Your task to perform on an android device: turn off sleep mode Image 0: 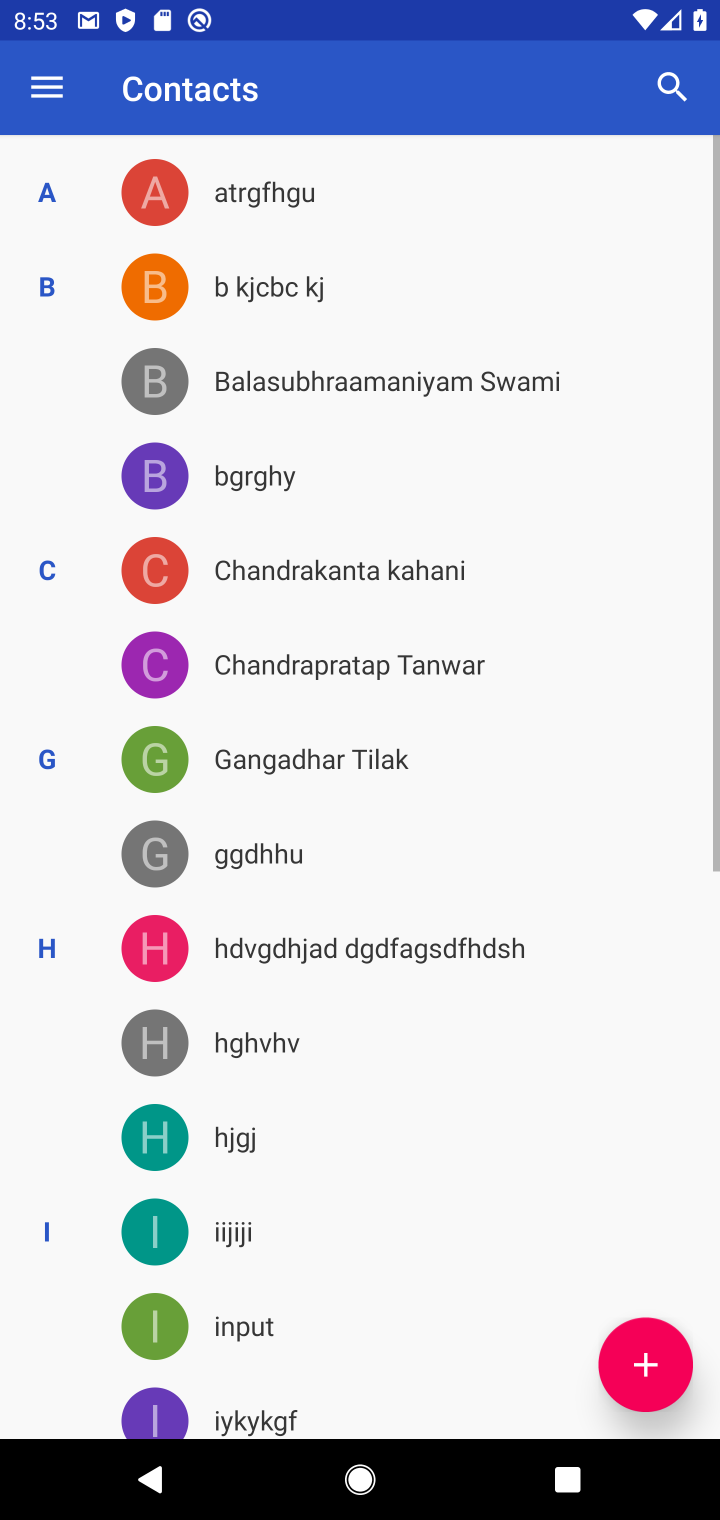
Step 0: drag from (506, 1423) to (484, 1351)
Your task to perform on an android device: turn off sleep mode Image 1: 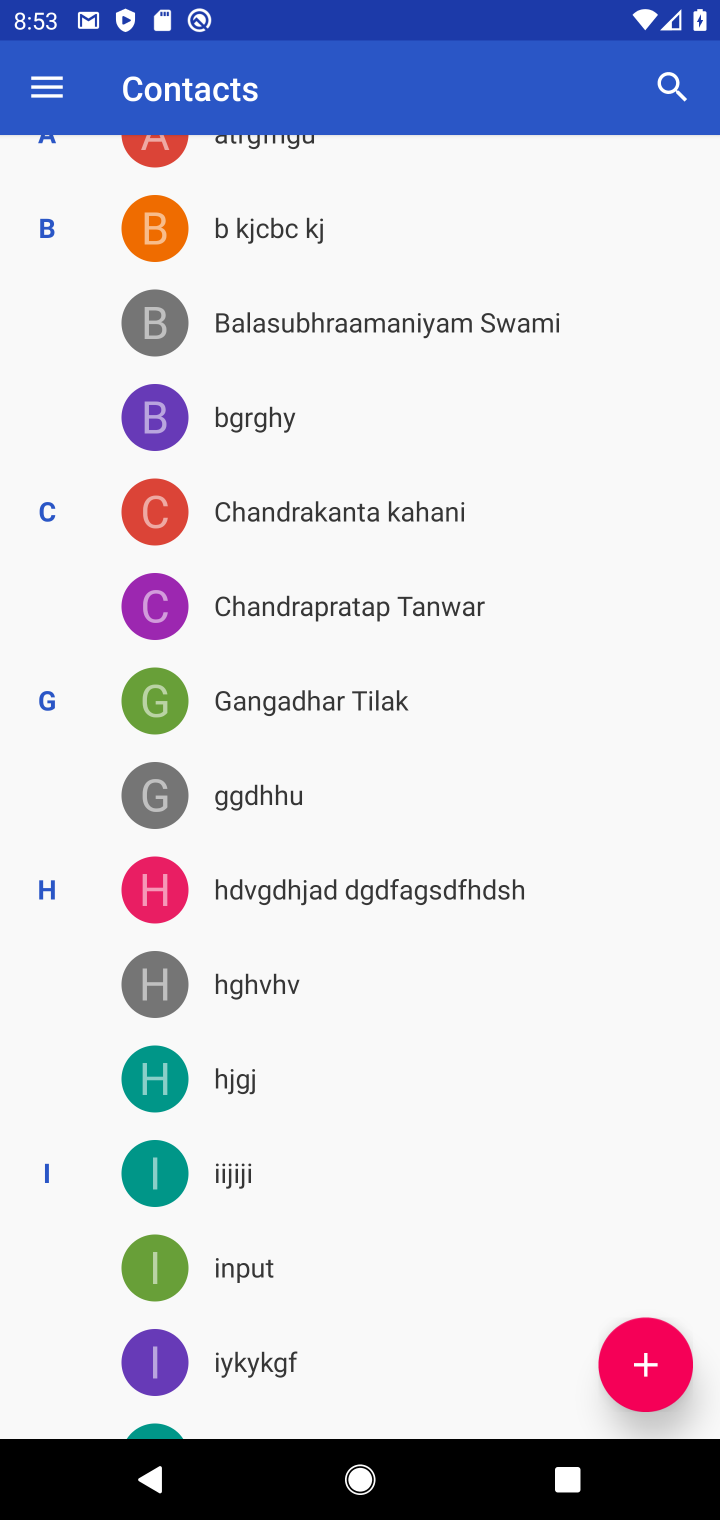
Step 1: press back button
Your task to perform on an android device: turn off sleep mode Image 2: 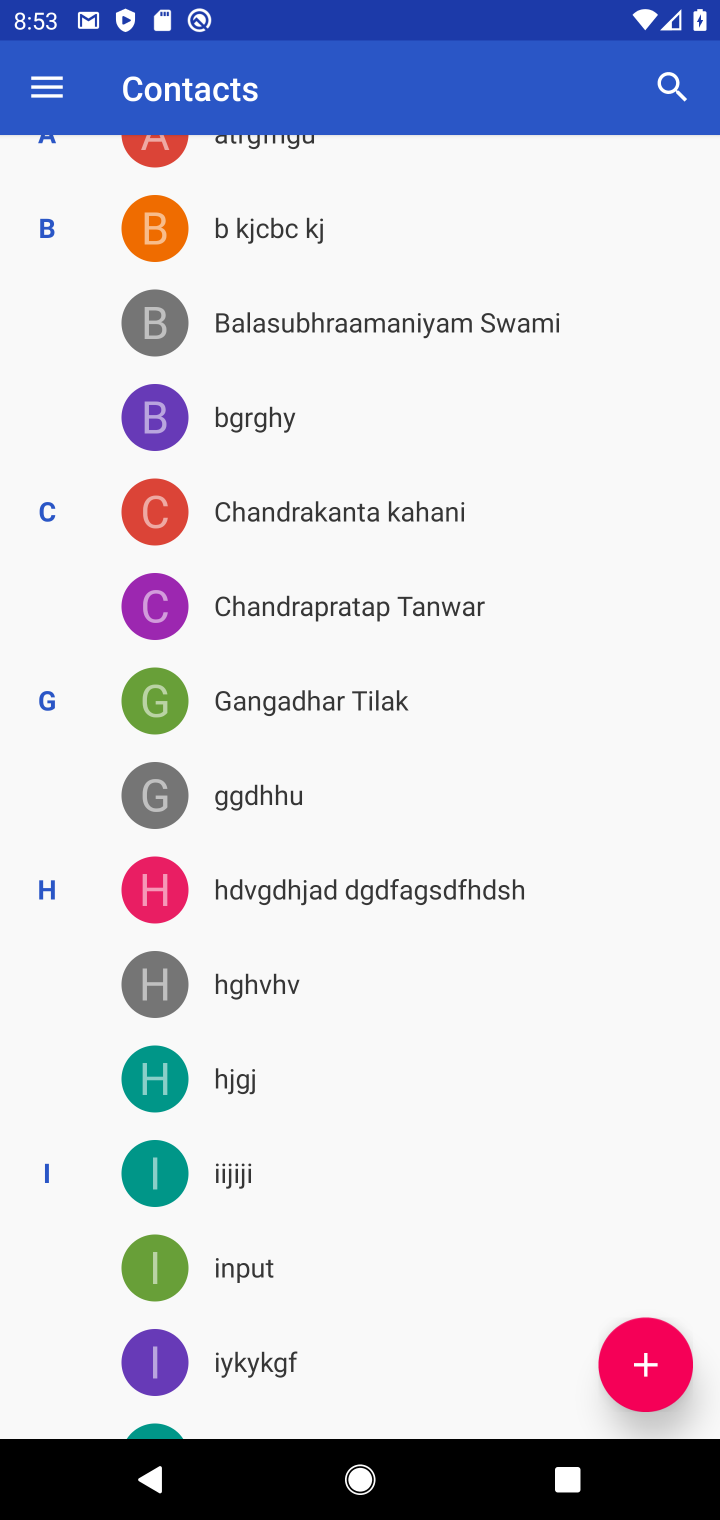
Step 2: press home button
Your task to perform on an android device: turn off sleep mode Image 3: 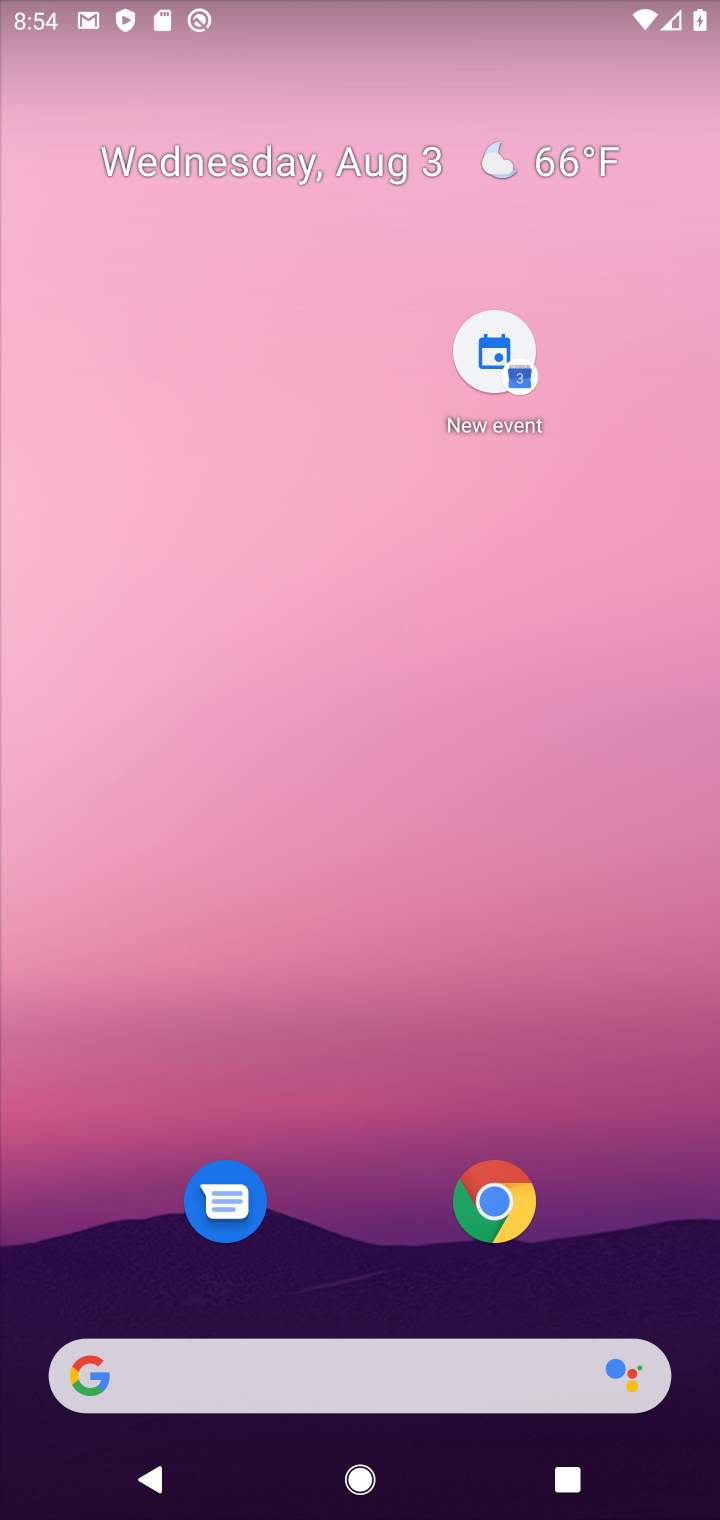
Step 3: press back button
Your task to perform on an android device: turn off sleep mode Image 4: 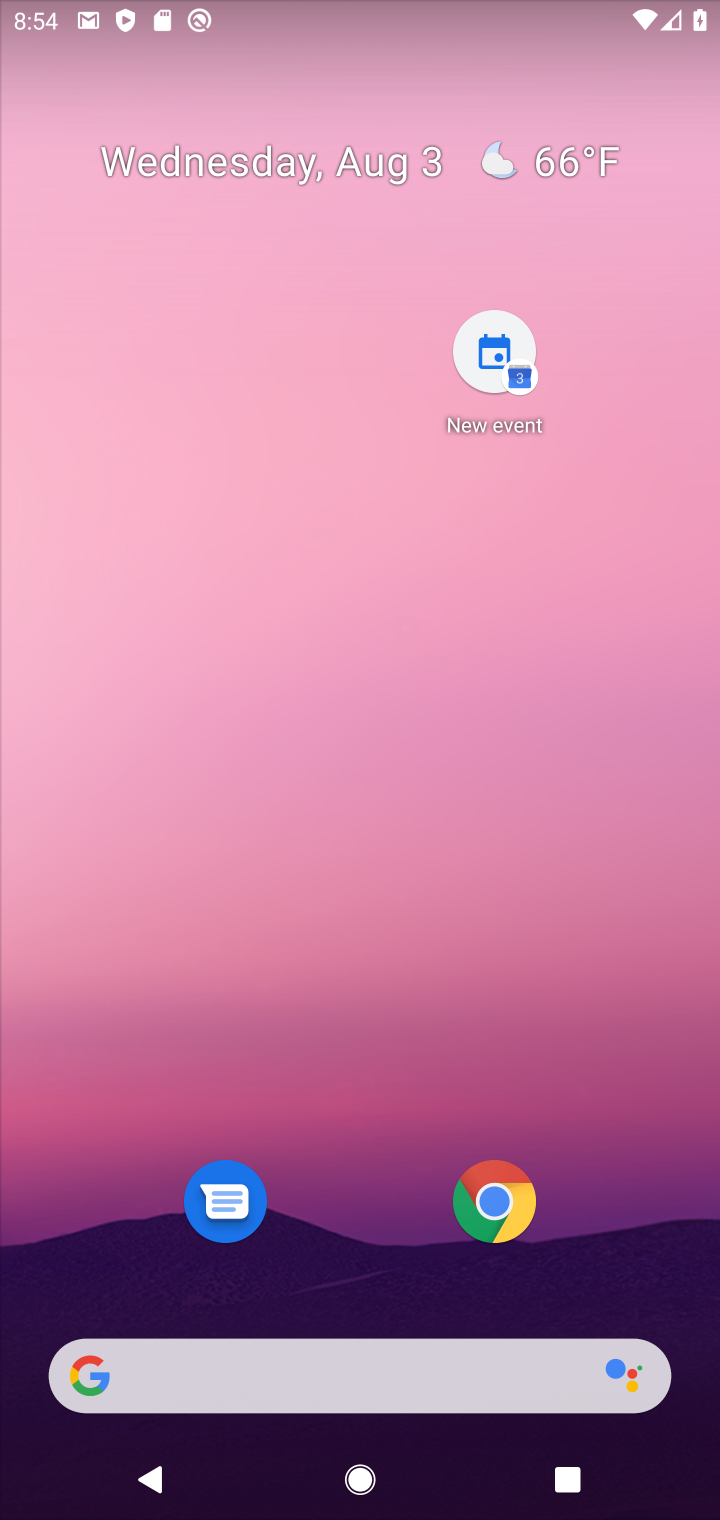
Step 4: click (189, 408)
Your task to perform on an android device: turn off sleep mode Image 5: 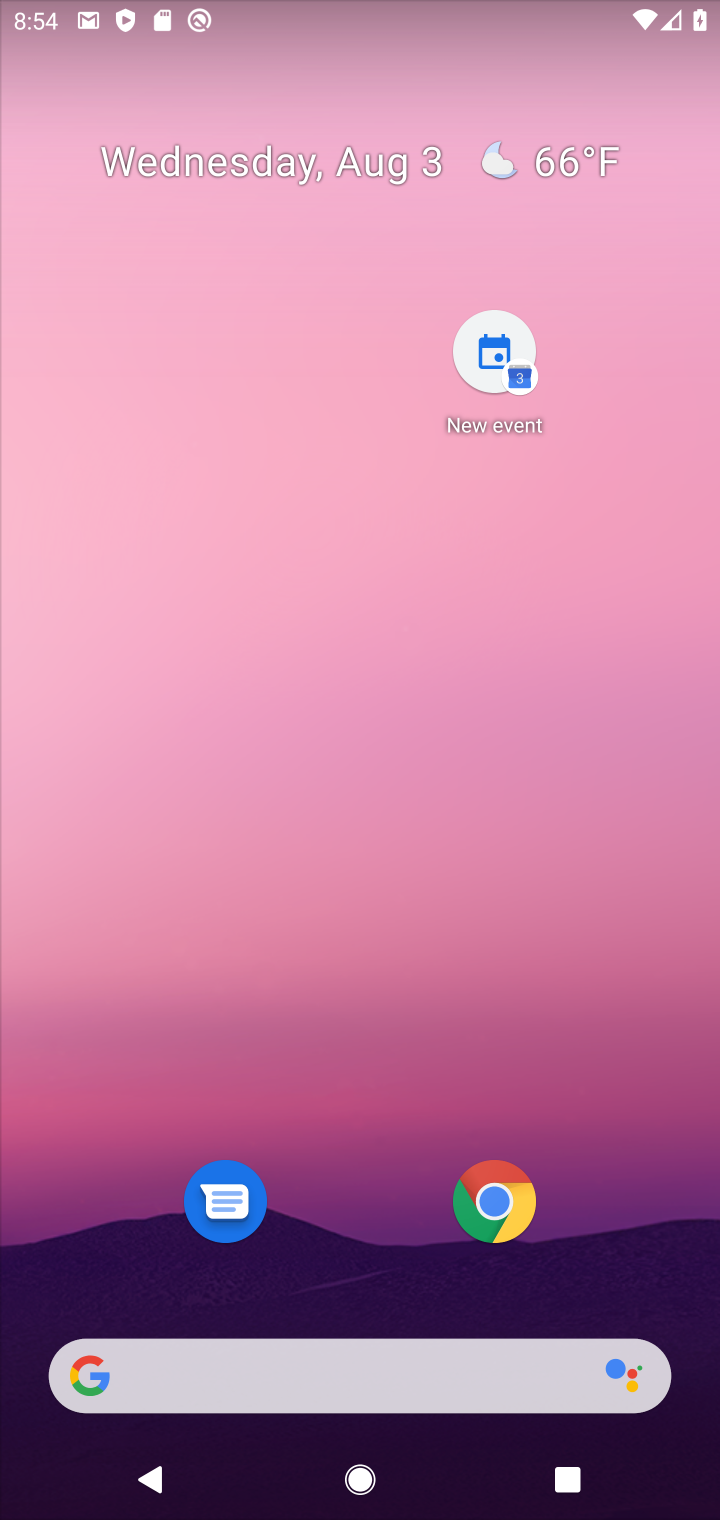
Step 5: drag from (351, 902) to (297, 476)
Your task to perform on an android device: turn off sleep mode Image 6: 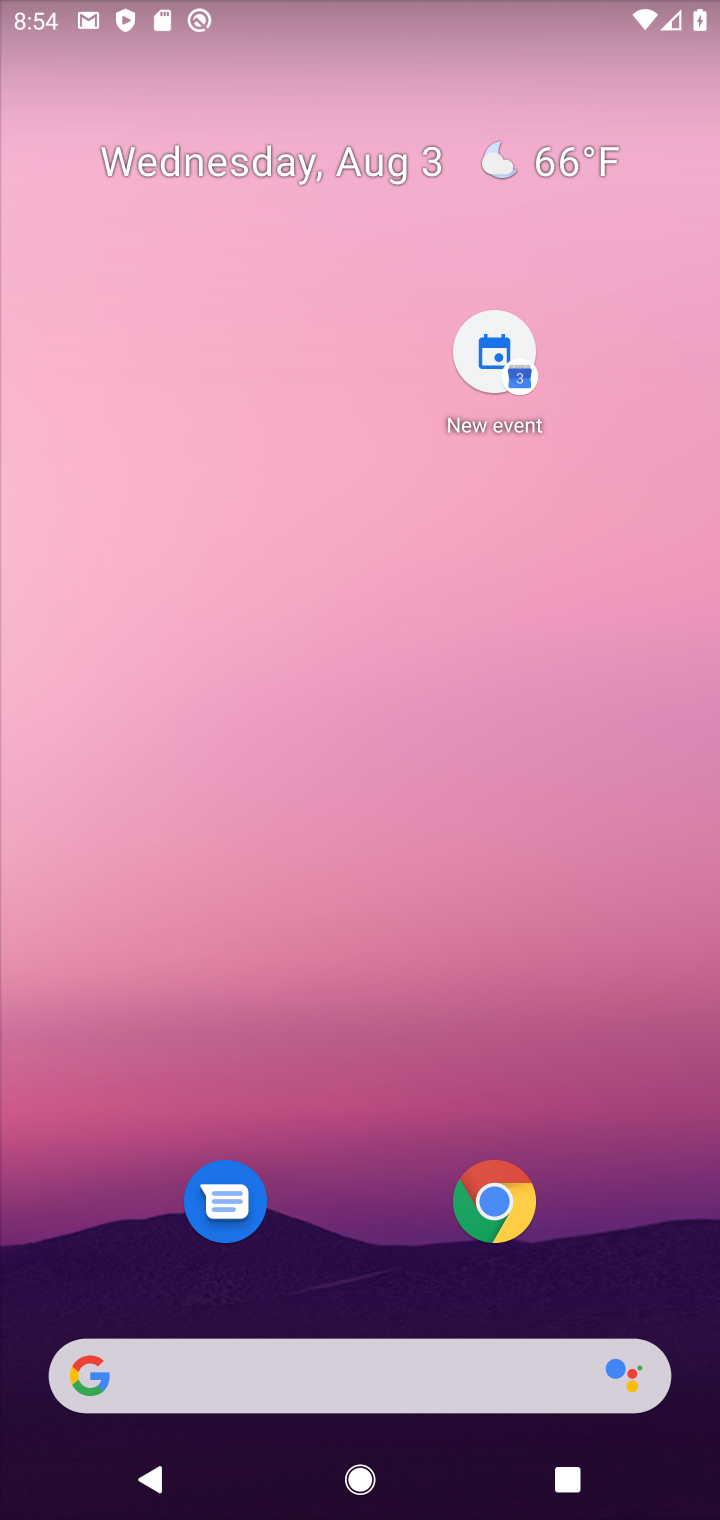
Step 6: drag from (357, 418) to (357, 264)
Your task to perform on an android device: turn off sleep mode Image 7: 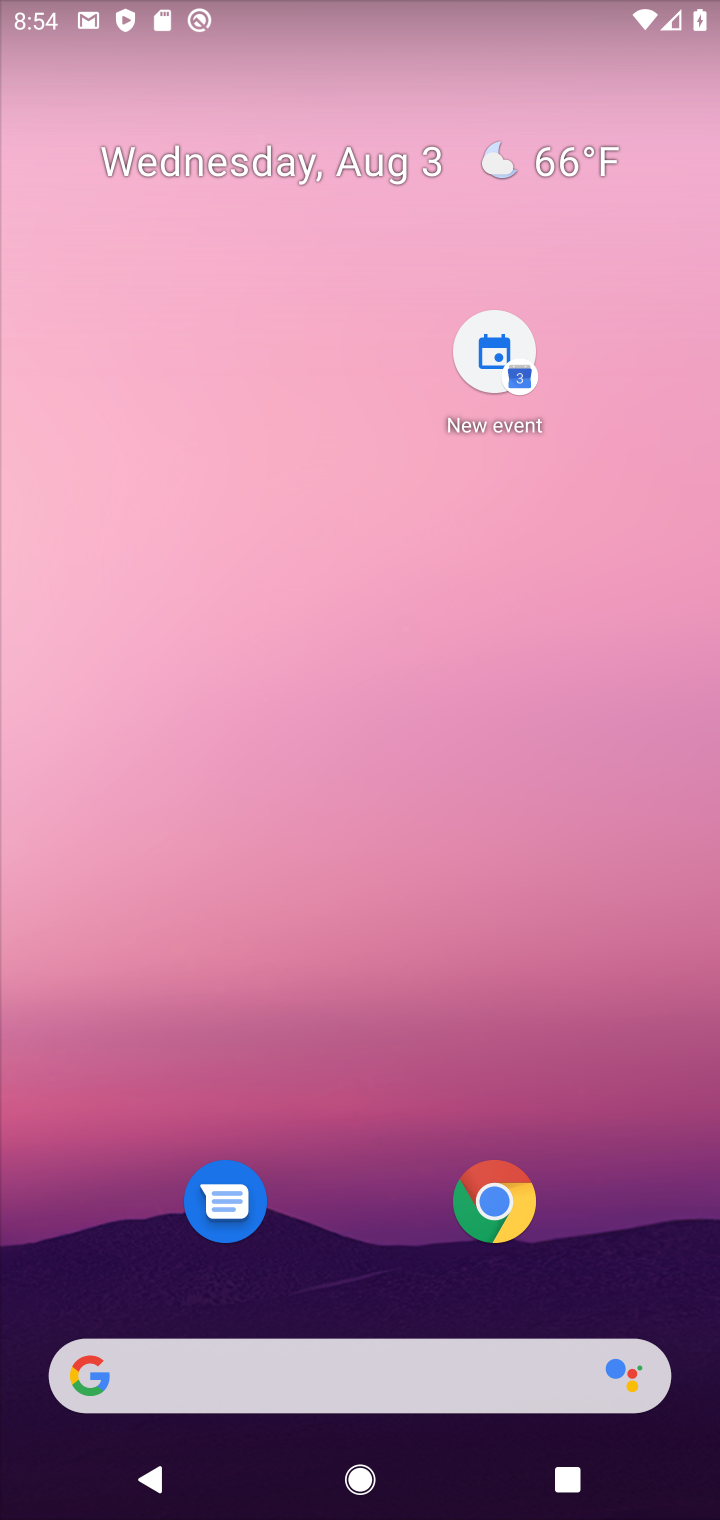
Step 7: drag from (270, 805) to (262, 649)
Your task to perform on an android device: turn off sleep mode Image 8: 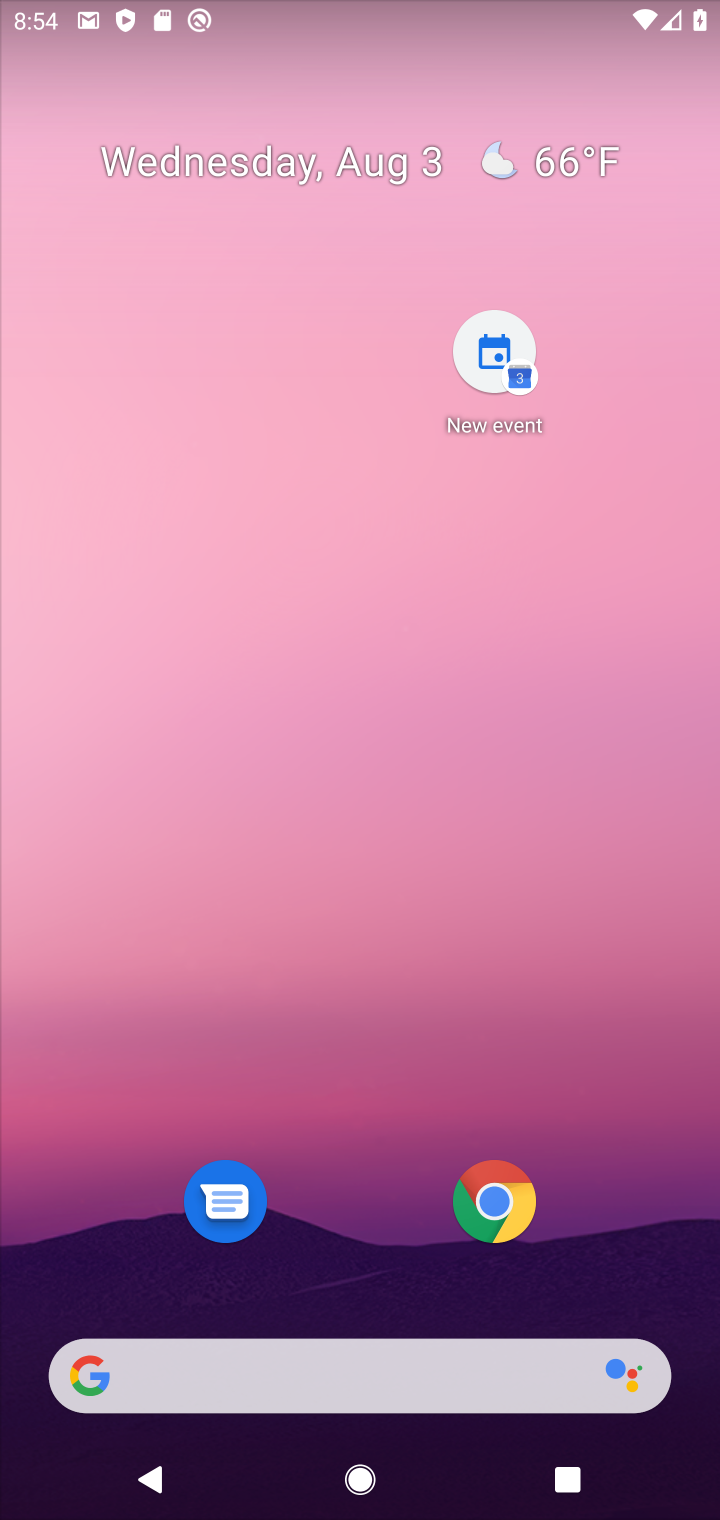
Step 8: drag from (237, 911) to (225, 301)
Your task to perform on an android device: turn off sleep mode Image 9: 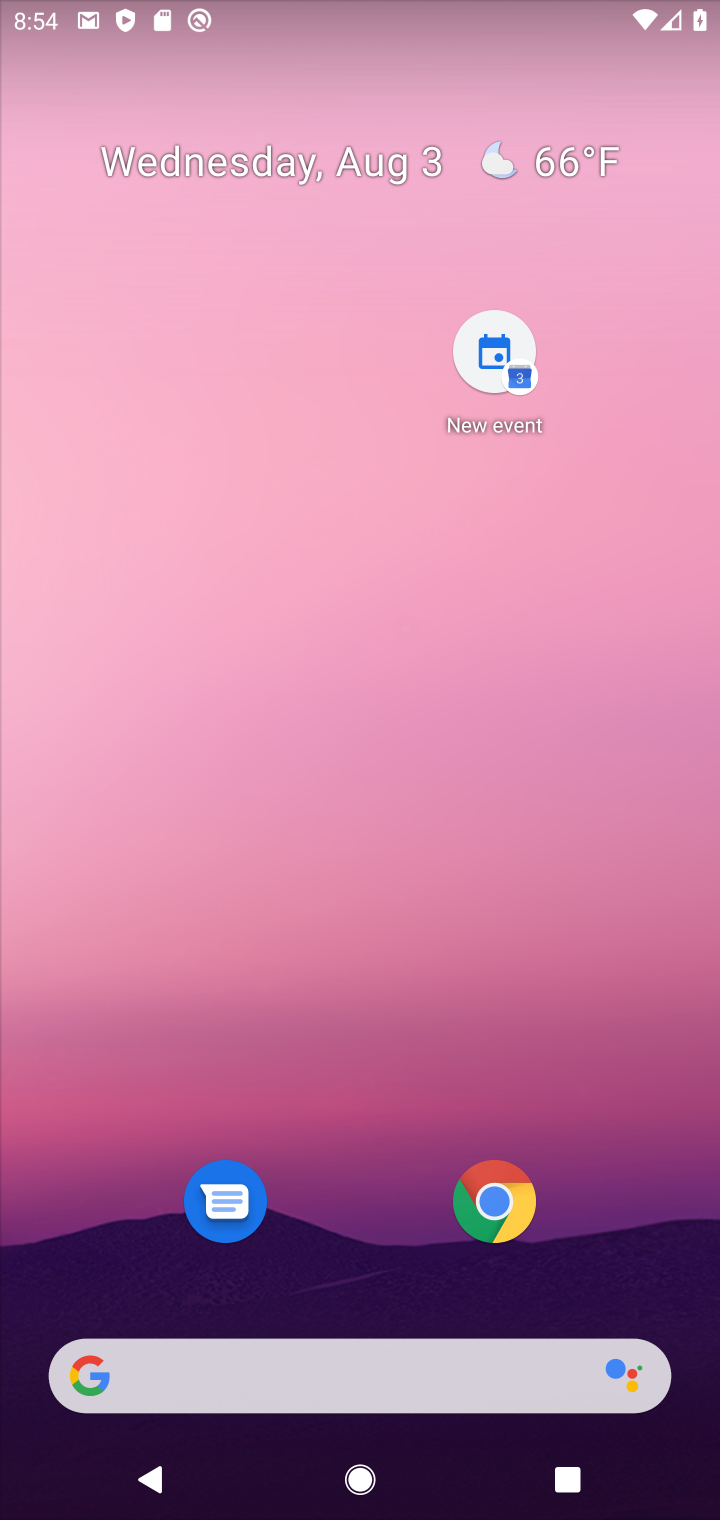
Step 9: drag from (438, 1341) to (215, 15)
Your task to perform on an android device: turn off sleep mode Image 10: 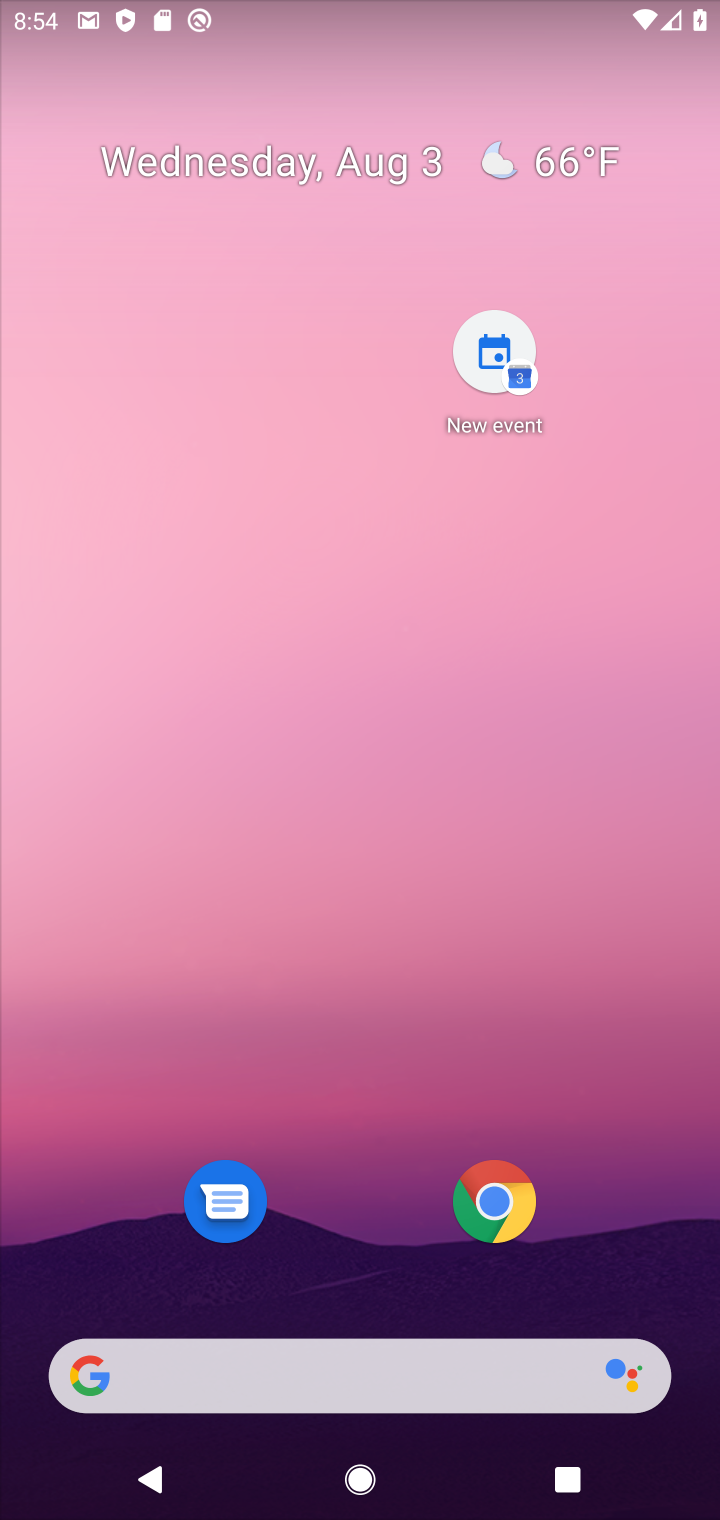
Step 10: drag from (261, 5) to (358, 33)
Your task to perform on an android device: turn off sleep mode Image 11: 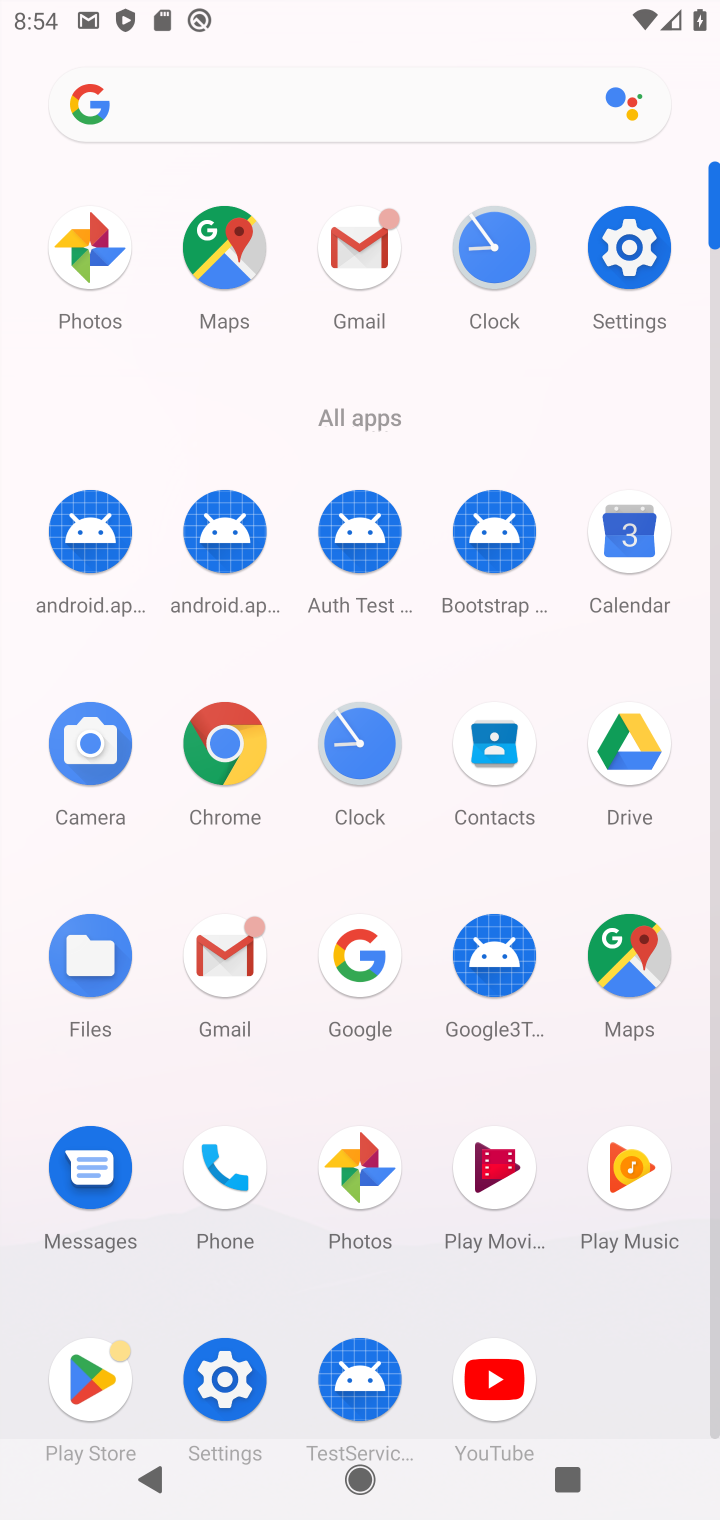
Step 11: click (625, 239)
Your task to perform on an android device: turn off sleep mode Image 12: 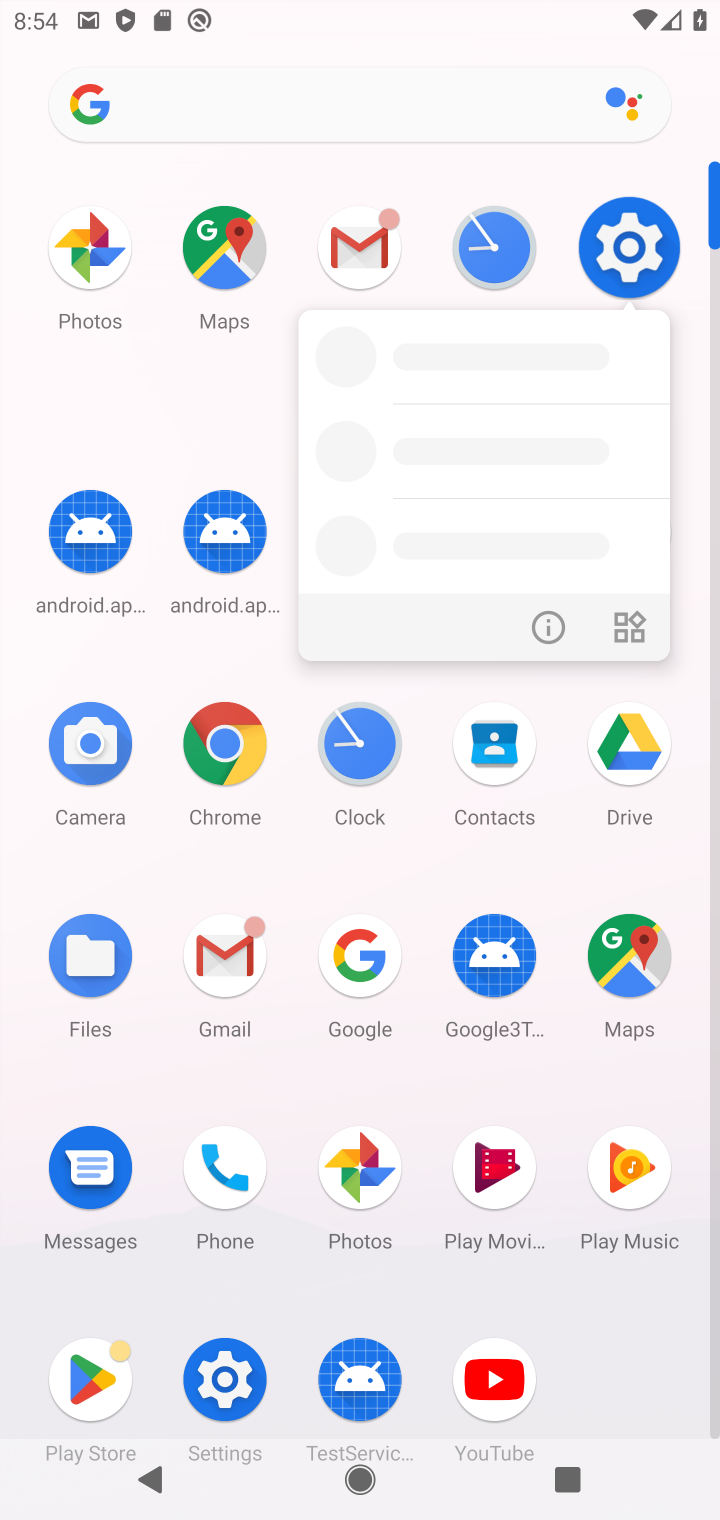
Step 12: click (625, 239)
Your task to perform on an android device: turn off sleep mode Image 13: 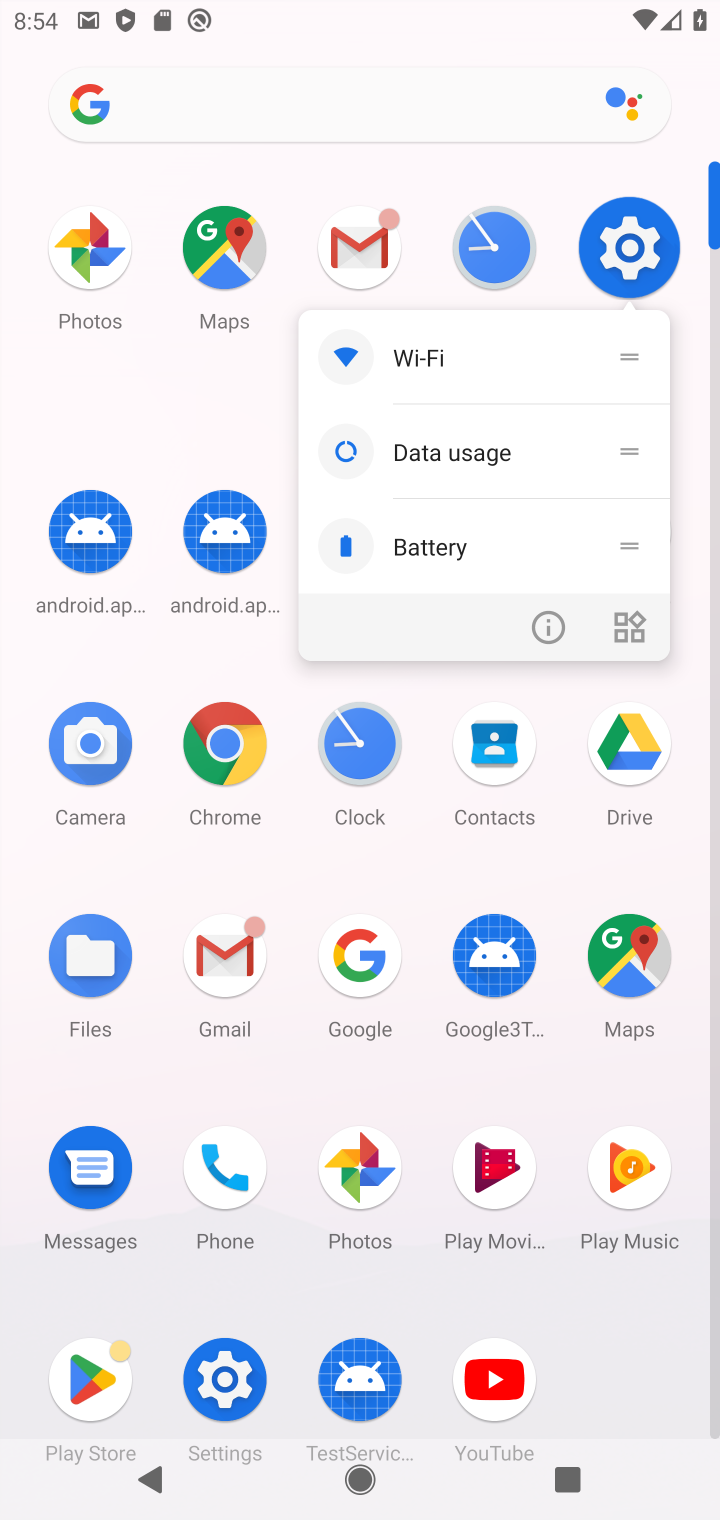
Step 13: click (630, 243)
Your task to perform on an android device: turn off sleep mode Image 14: 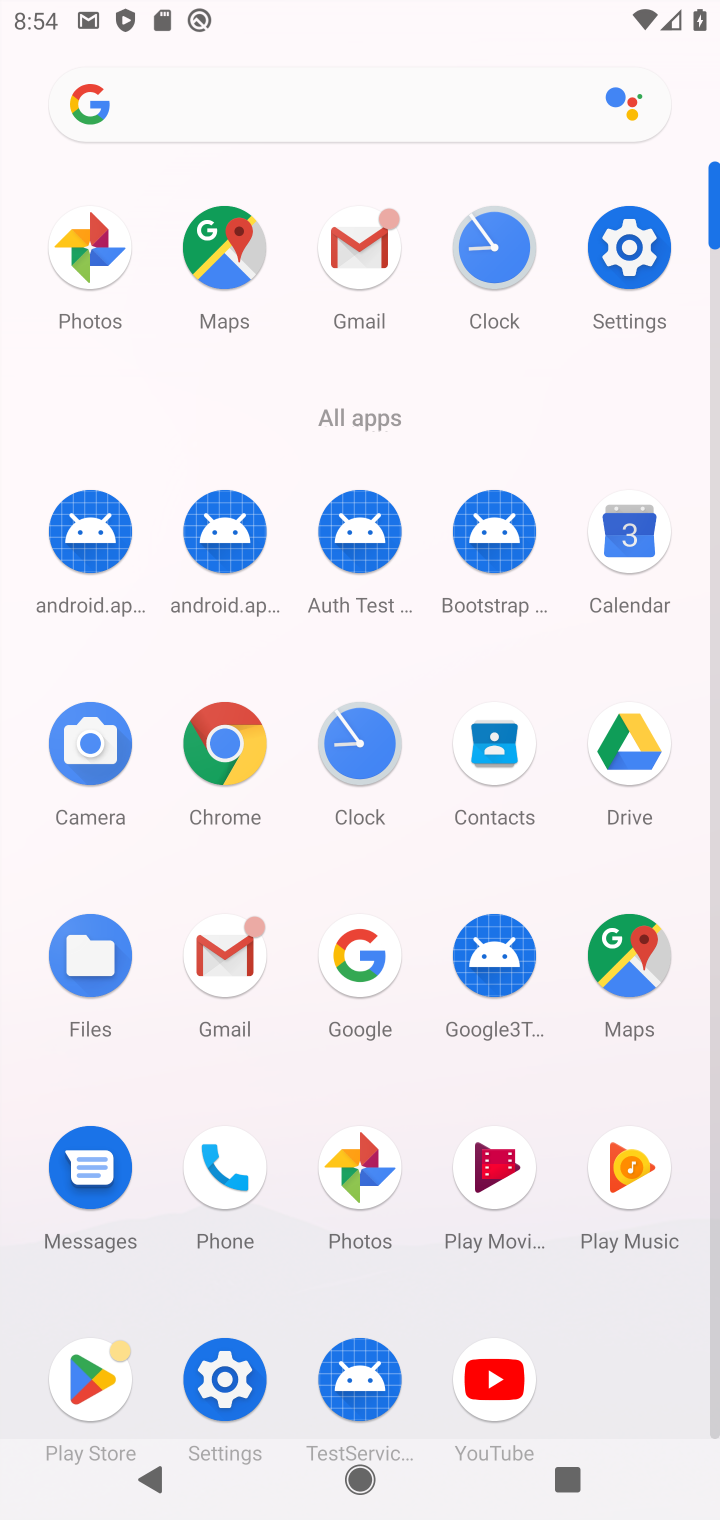
Step 14: click (630, 243)
Your task to perform on an android device: turn off sleep mode Image 15: 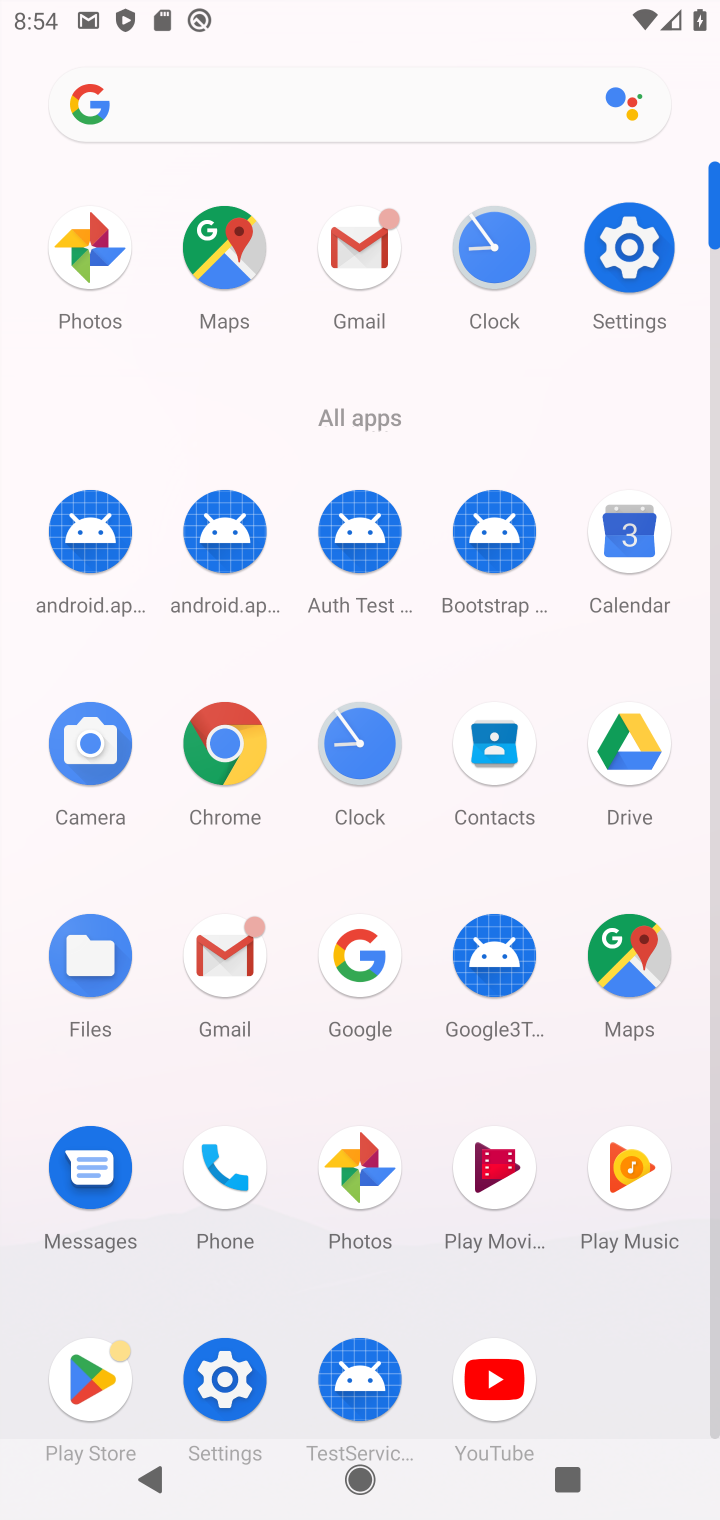
Step 15: click (630, 243)
Your task to perform on an android device: turn off sleep mode Image 16: 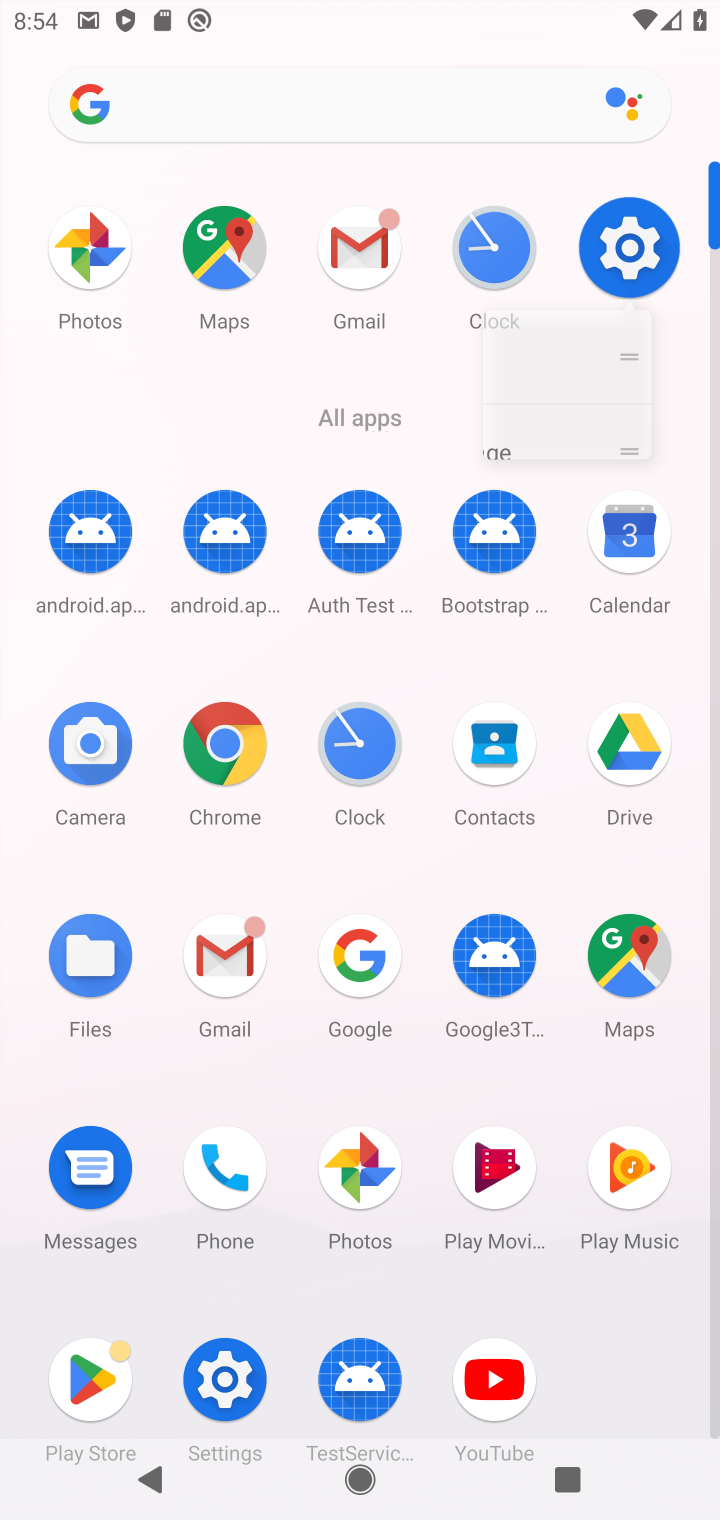
Step 16: click (630, 243)
Your task to perform on an android device: turn off sleep mode Image 17: 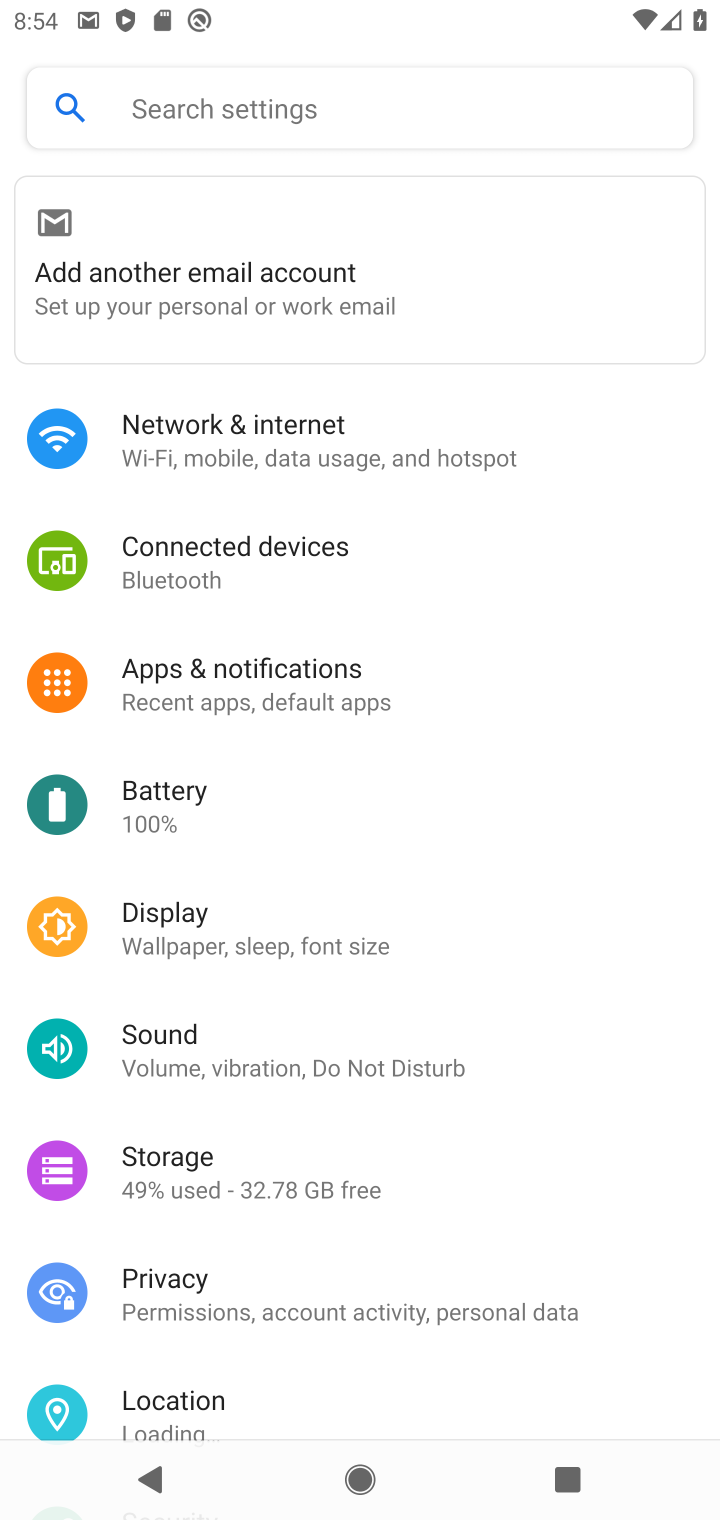
Step 17: click (166, 738)
Your task to perform on an android device: turn off sleep mode Image 18: 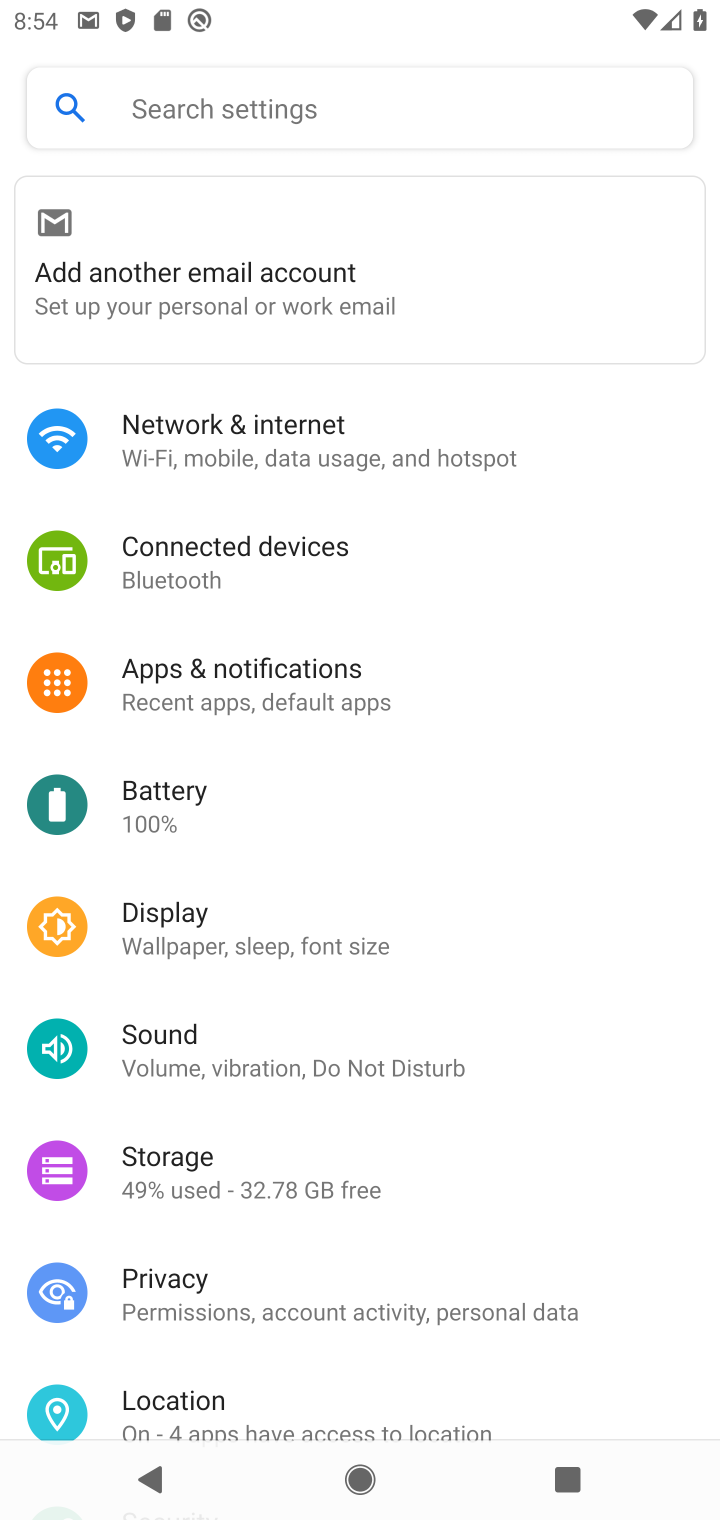
Step 18: click (179, 714)
Your task to perform on an android device: turn off sleep mode Image 19: 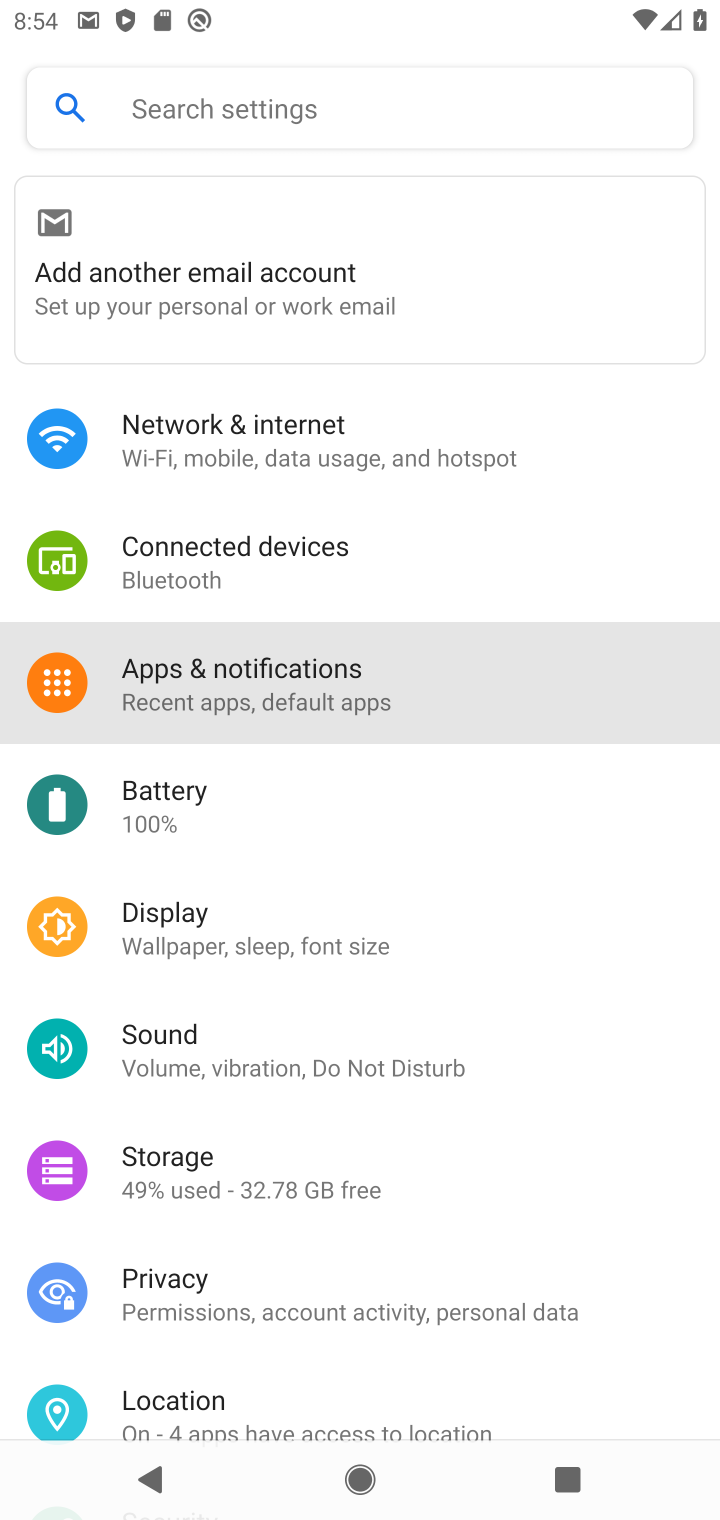
Step 19: click (181, 708)
Your task to perform on an android device: turn off sleep mode Image 20: 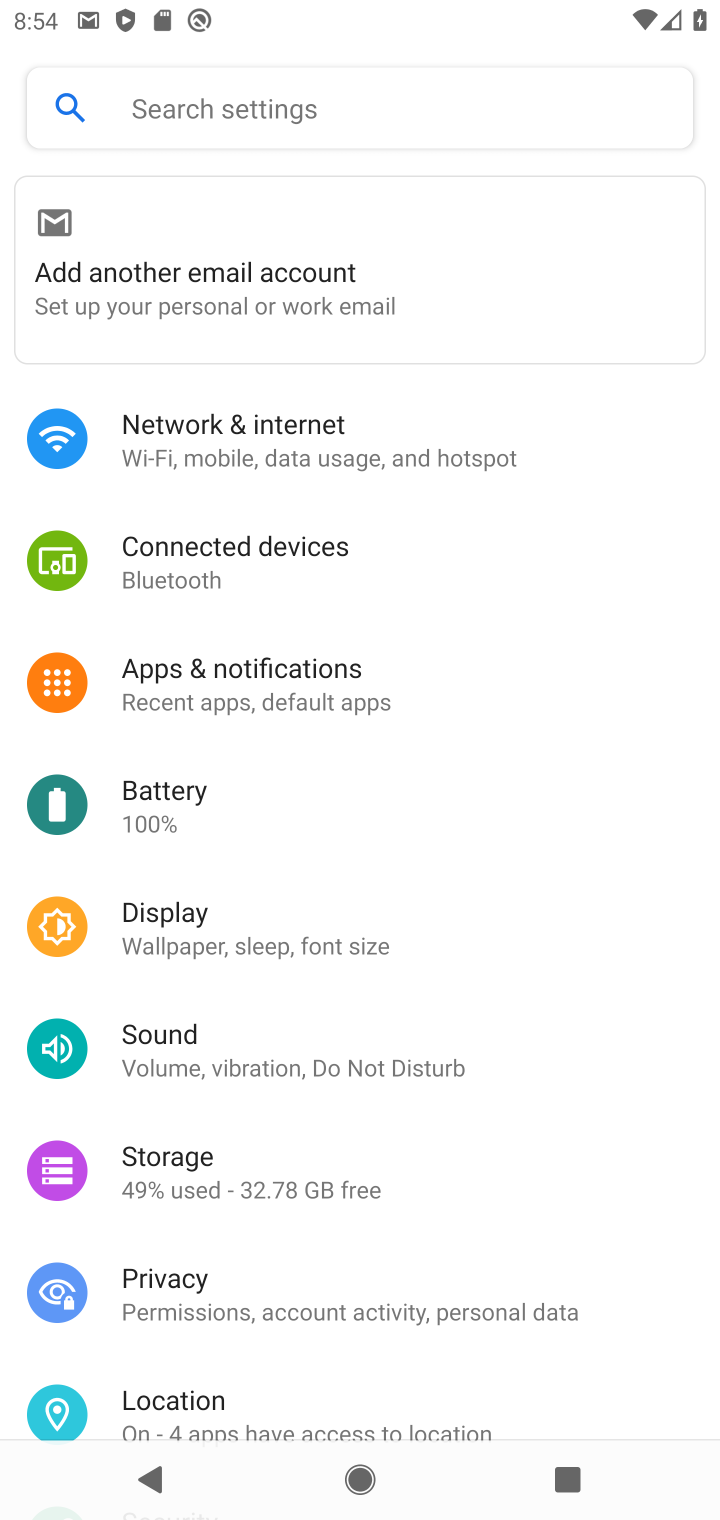
Step 20: click (181, 708)
Your task to perform on an android device: turn off sleep mode Image 21: 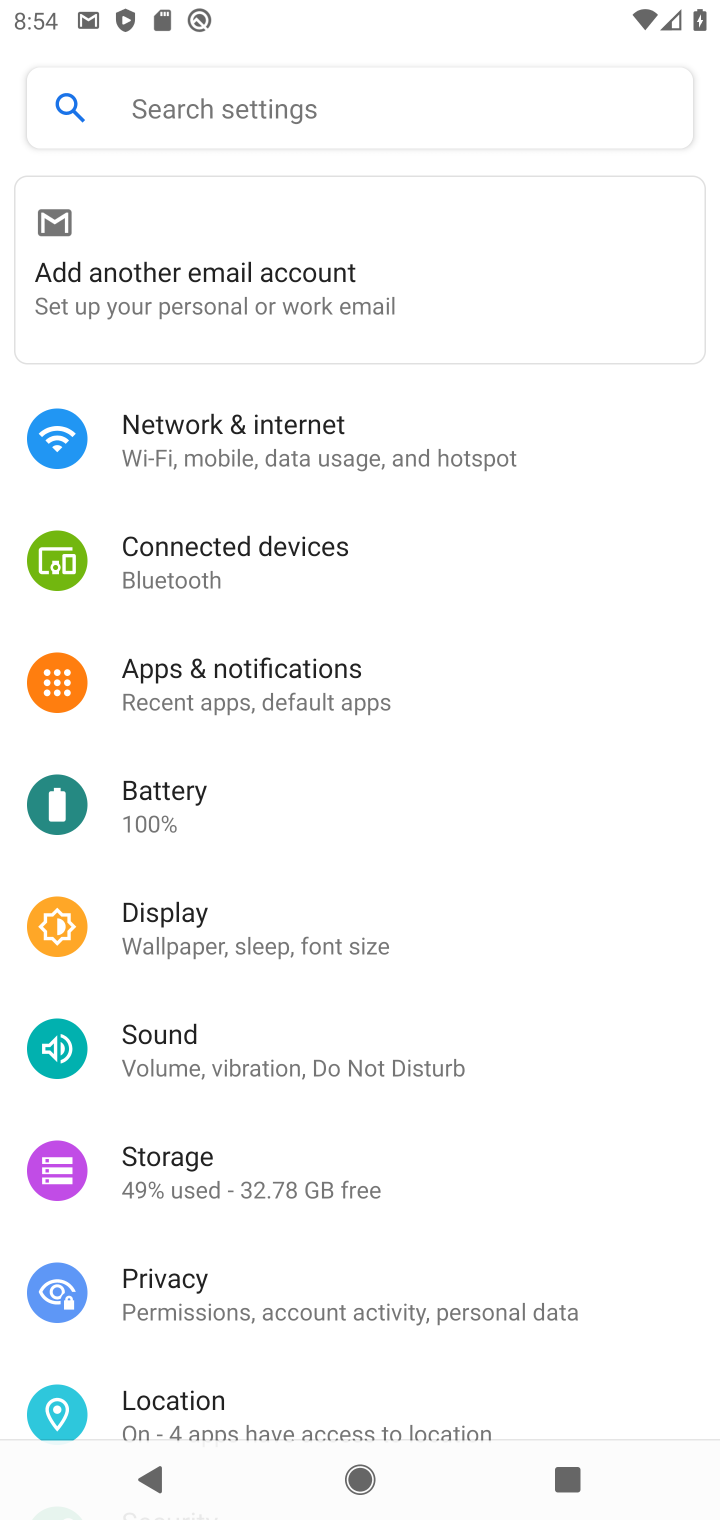
Step 21: click (211, 946)
Your task to perform on an android device: turn off sleep mode Image 22: 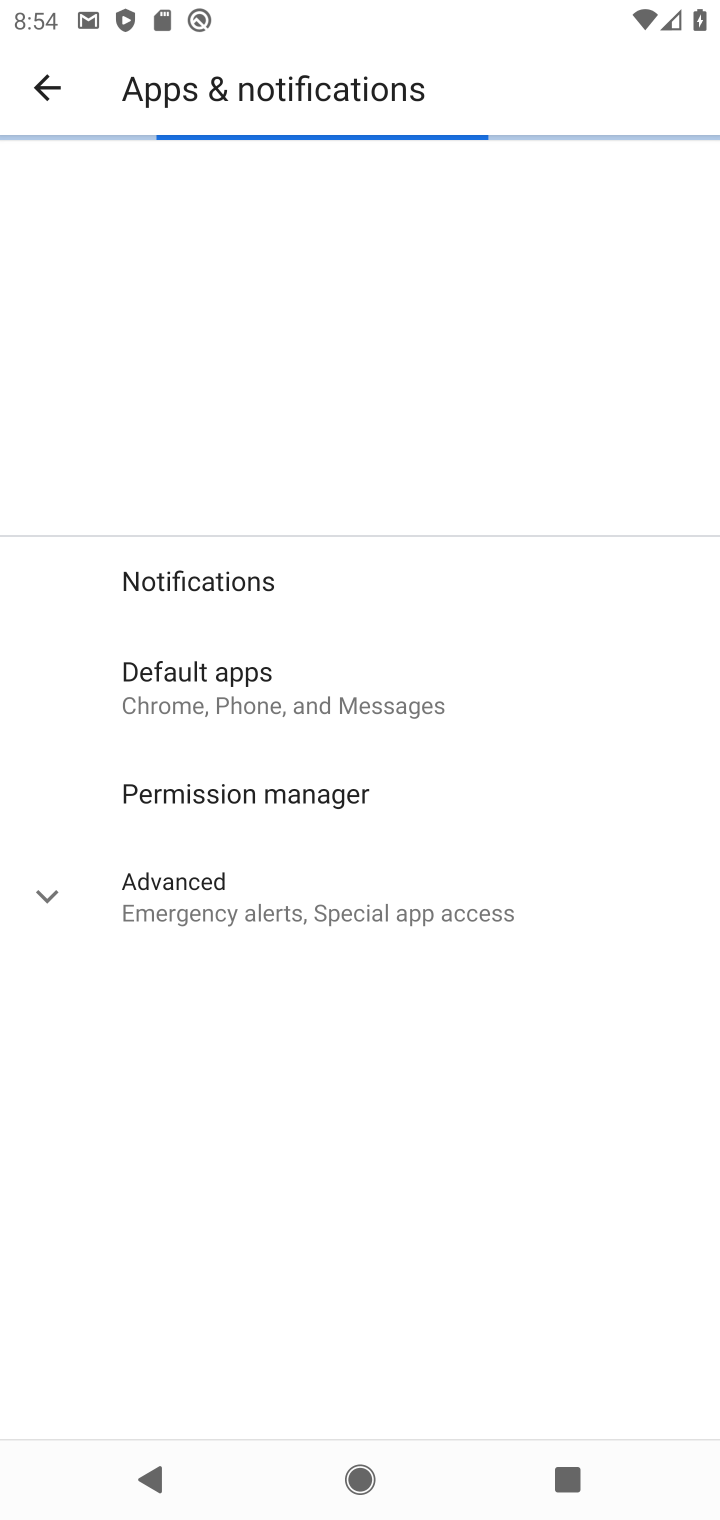
Step 22: click (179, 951)
Your task to perform on an android device: turn off sleep mode Image 23: 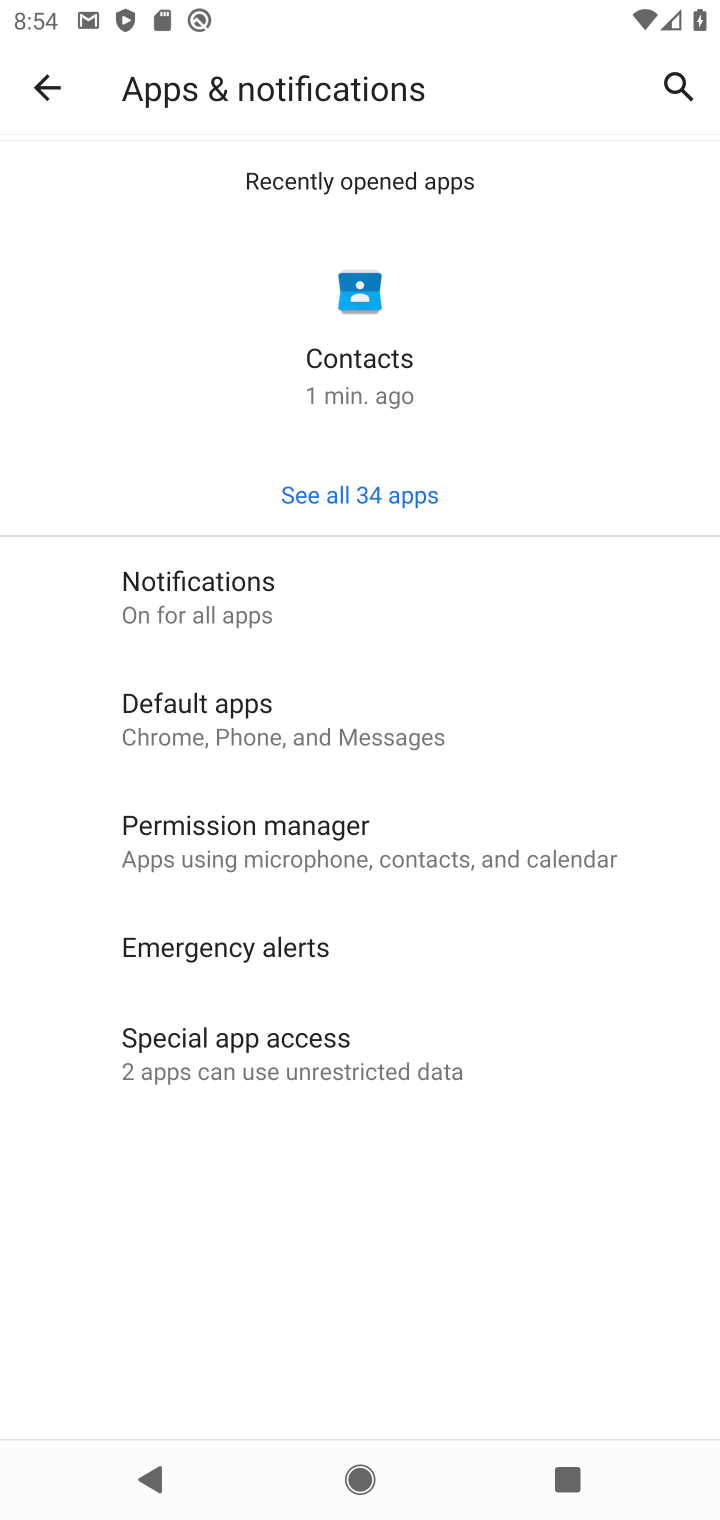
Step 23: click (19, 87)
Your task to perform on an android device: turn off sleep mode Image 24: 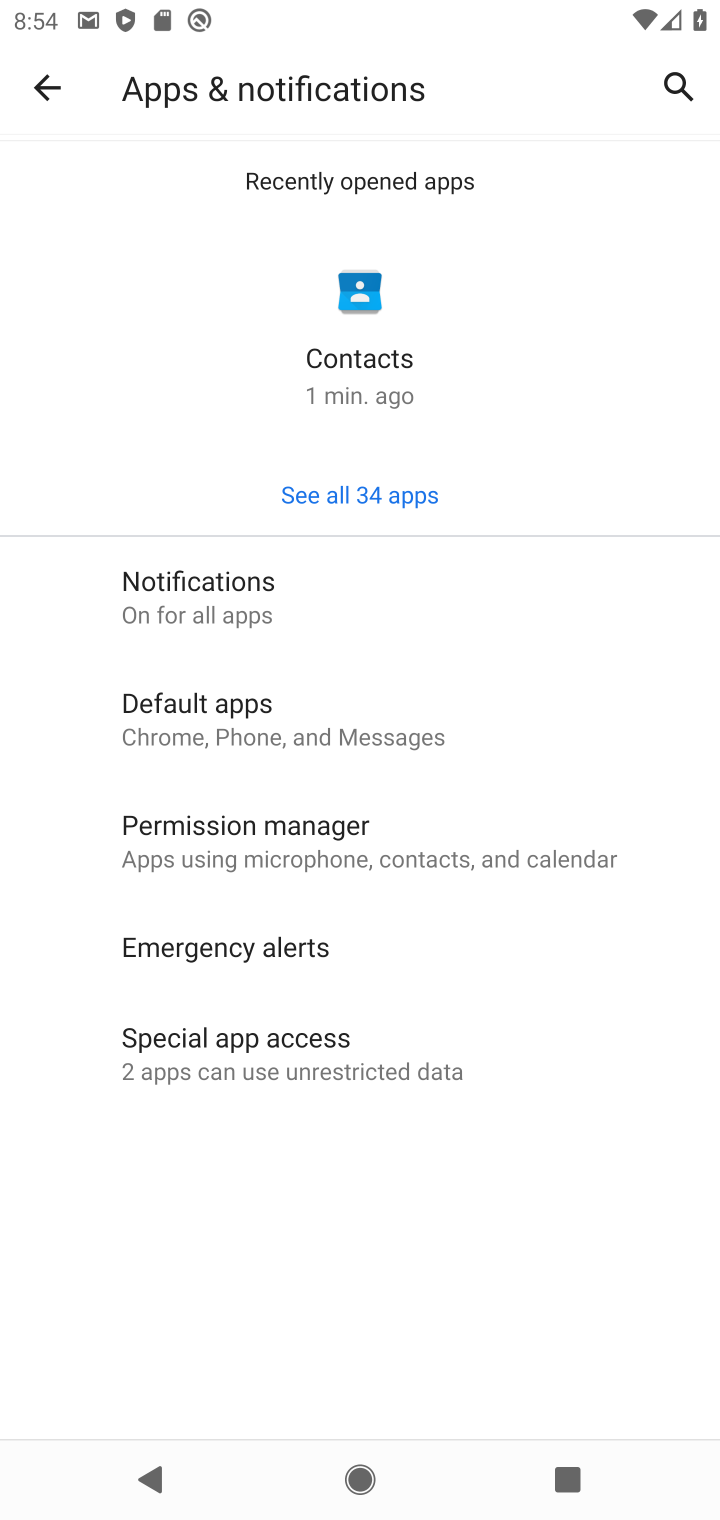
Step 24: click (36, 87)
Your task to perform on an android device: turn off sleep mode Image 25: 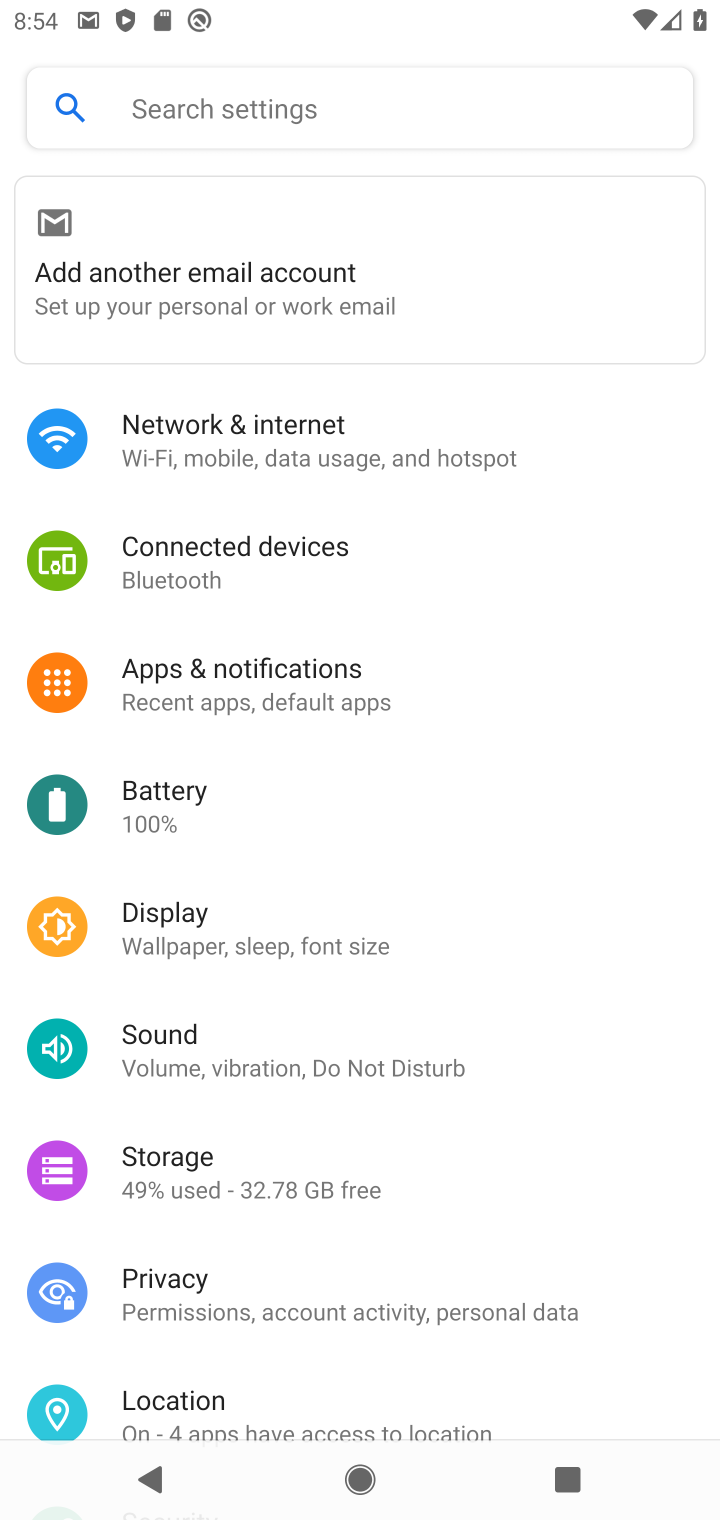
Step 25: click (171, 931)
Your task to perform on an android device: turn off sleep mode Image 26: 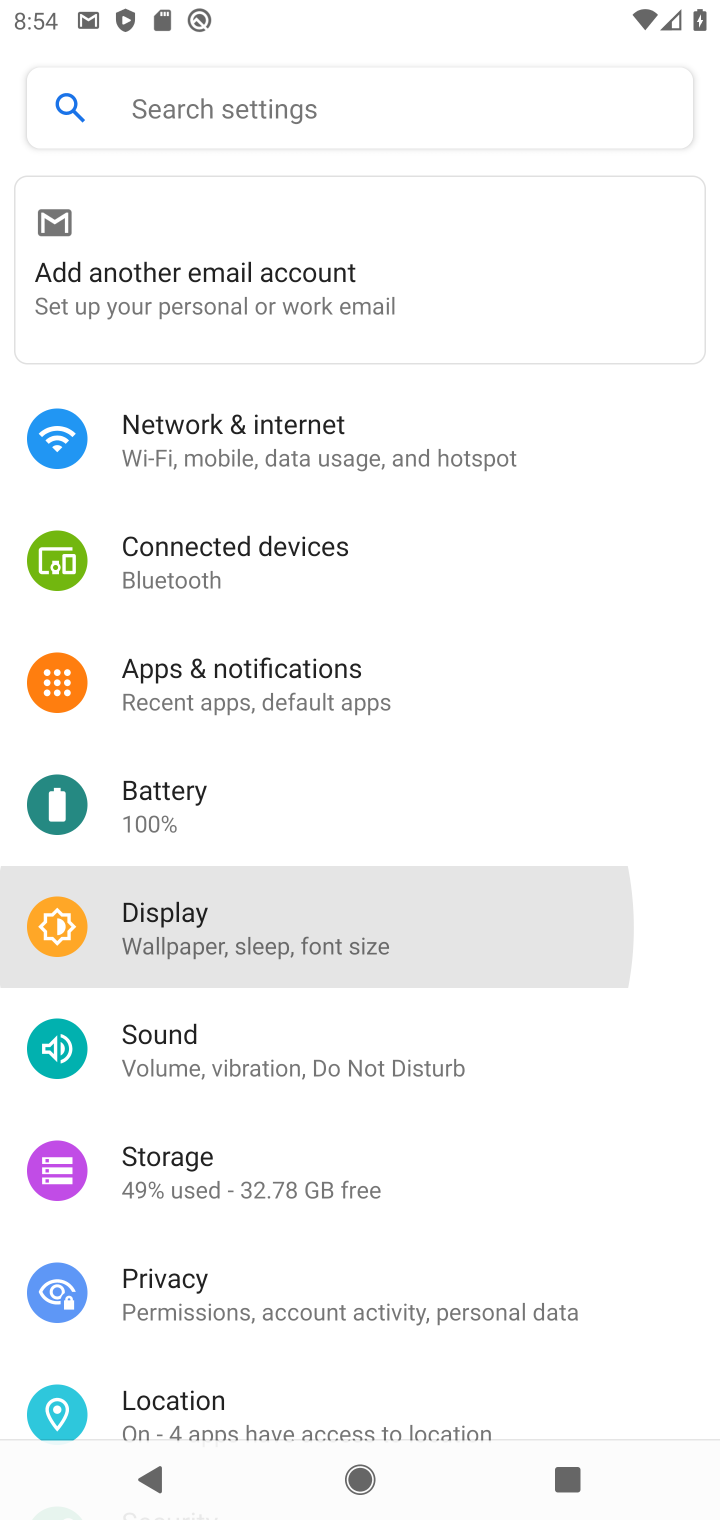
Step 26: click (171, 931)
Your task to perform on an android device: turn off sleep mode Image 27: 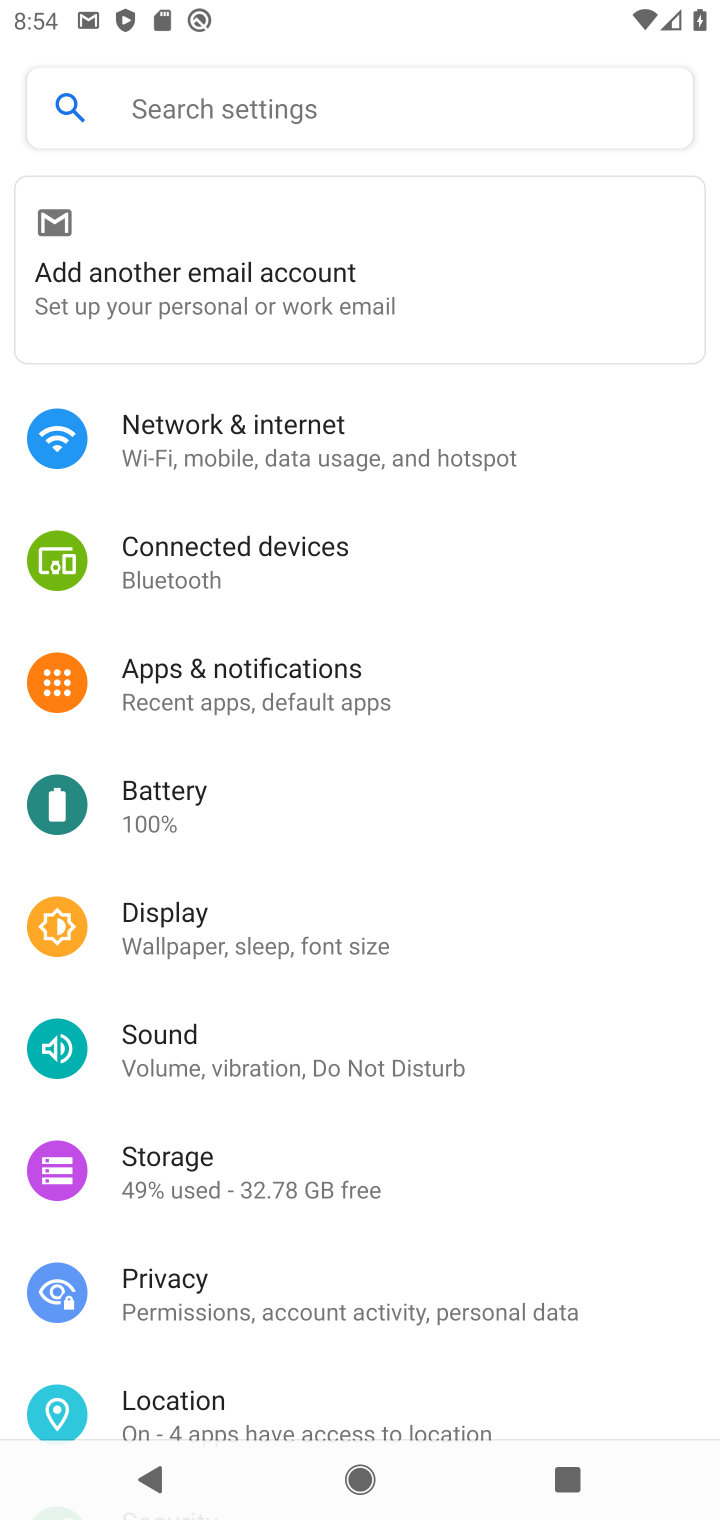
Step 27: click (171, 931)
Your task to perform on an android device: turn off sleep mode Image 28: 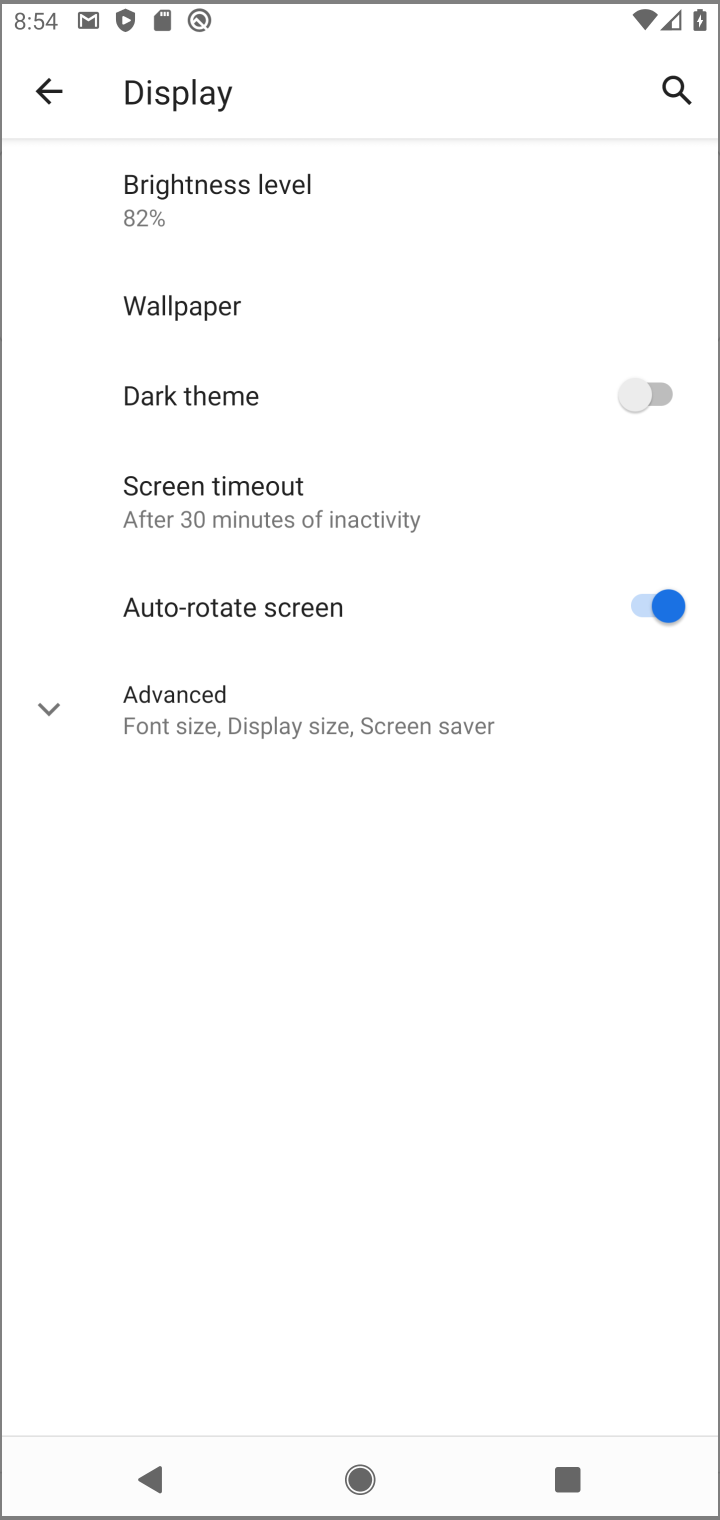
Step 28: click (171, 931)
Your task to perform on an android device: turn off sleep mode Image 29: 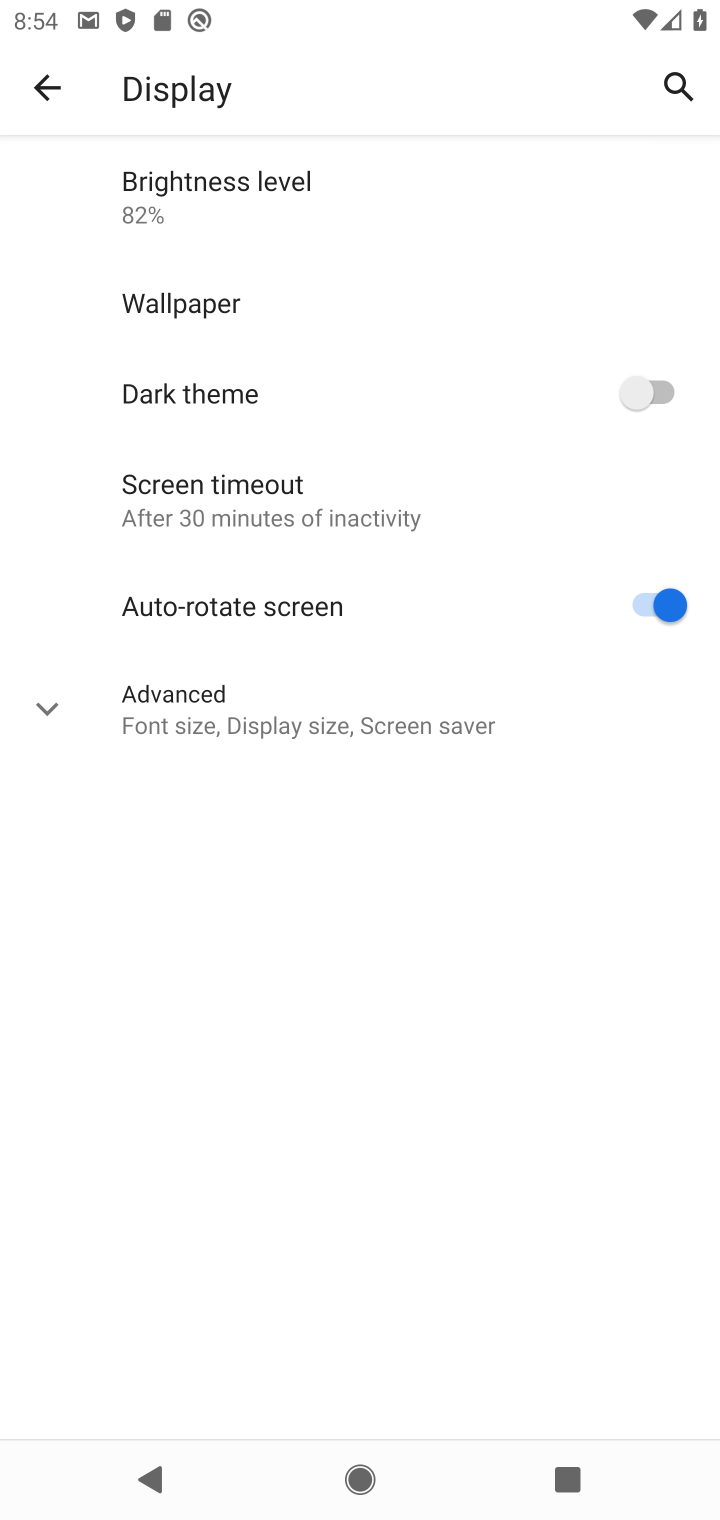
Step 29: click (160, 509)
Your task to perform on an android device: turn off sleep mode Image 30: 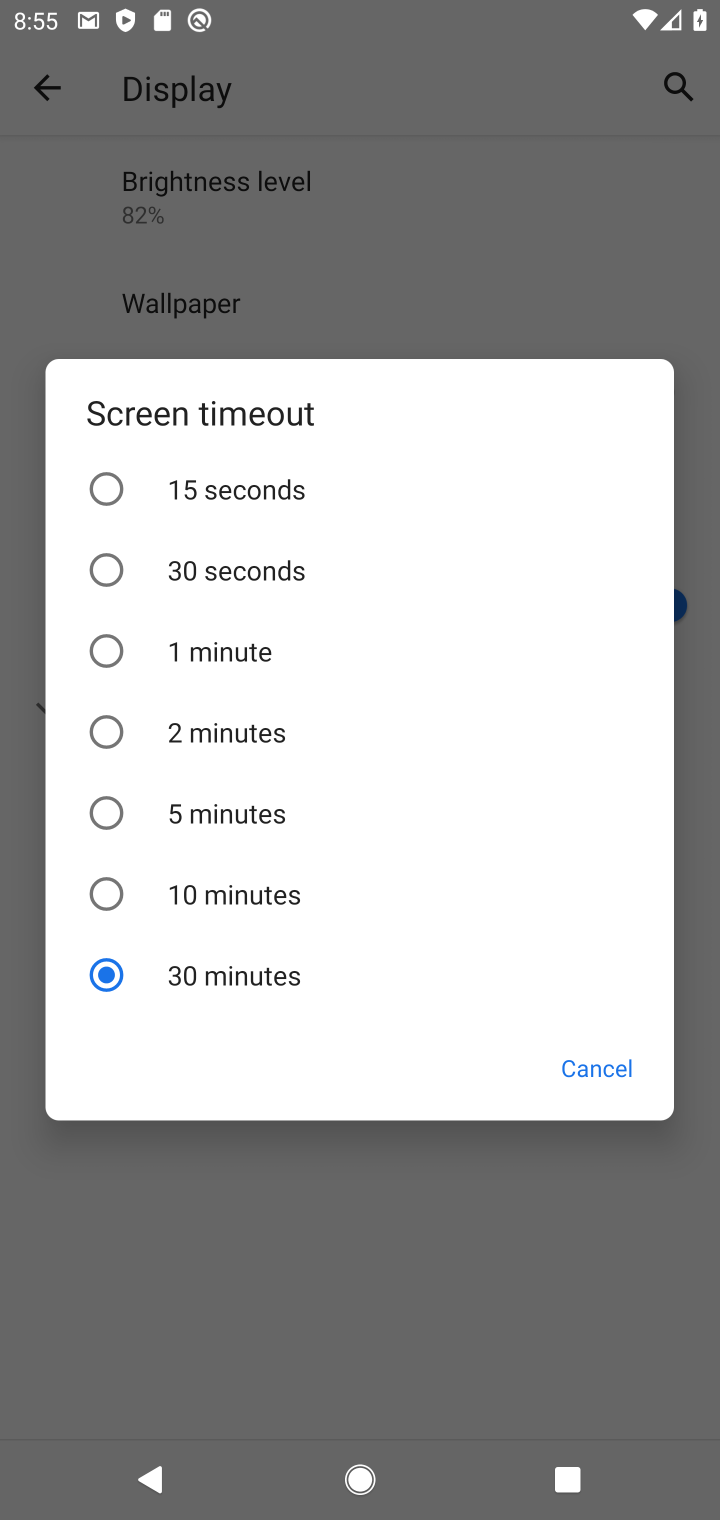
Step 30: task complete